Your task to perform on an android device: Turn on the flashlight Image 0: 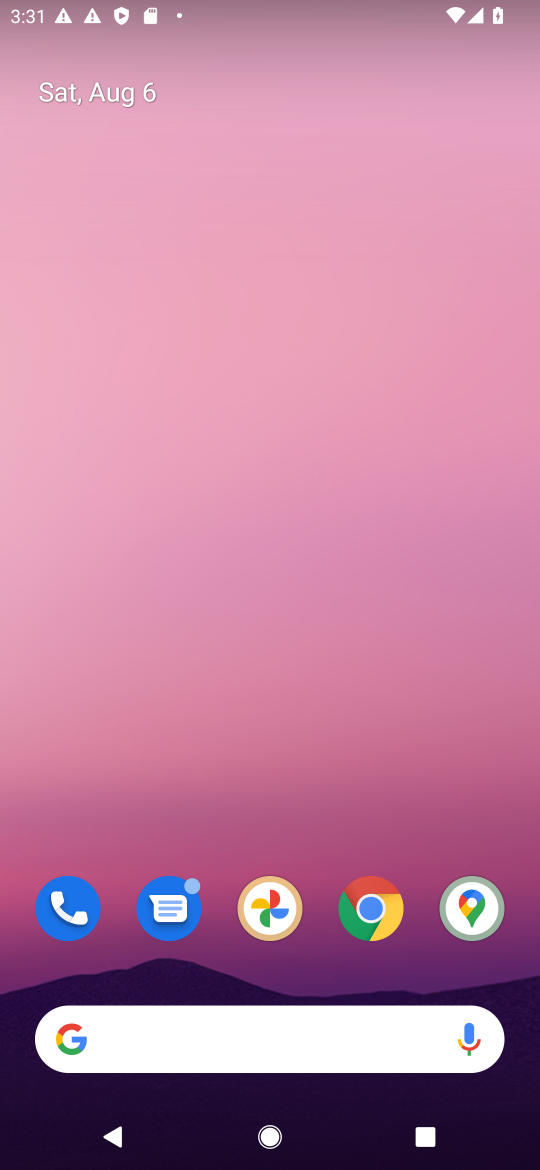
Step 0: drag from (261, 943) to (272, 60)
Your task to perform on an android device: Turn on the flashlight Image 1: 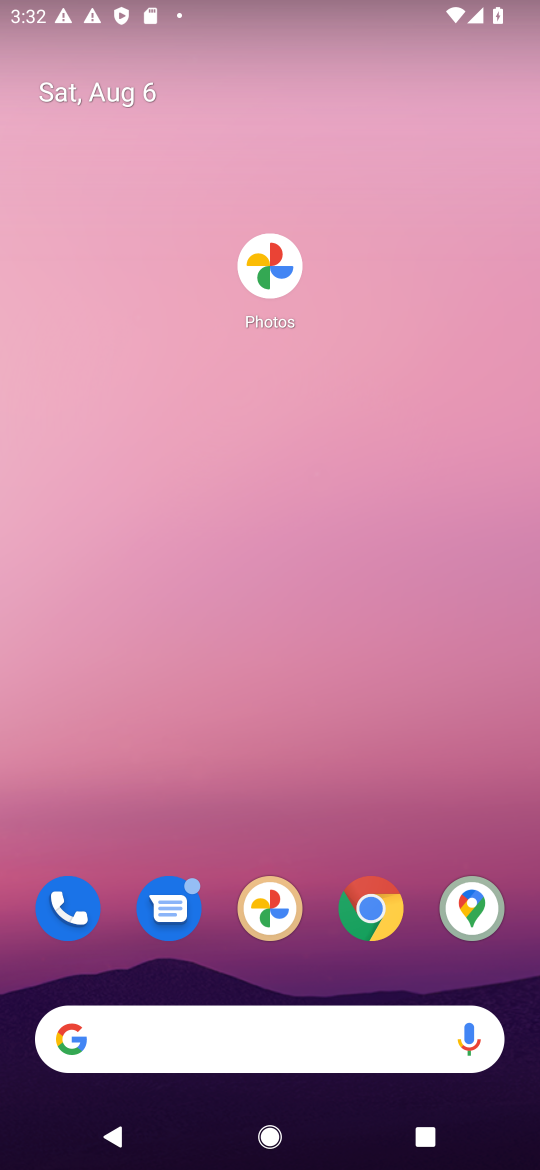
Step 1: drag from (331, 945) to (336, 262)
Your task to perform on an android device: Turn on the flashlight Image 2: 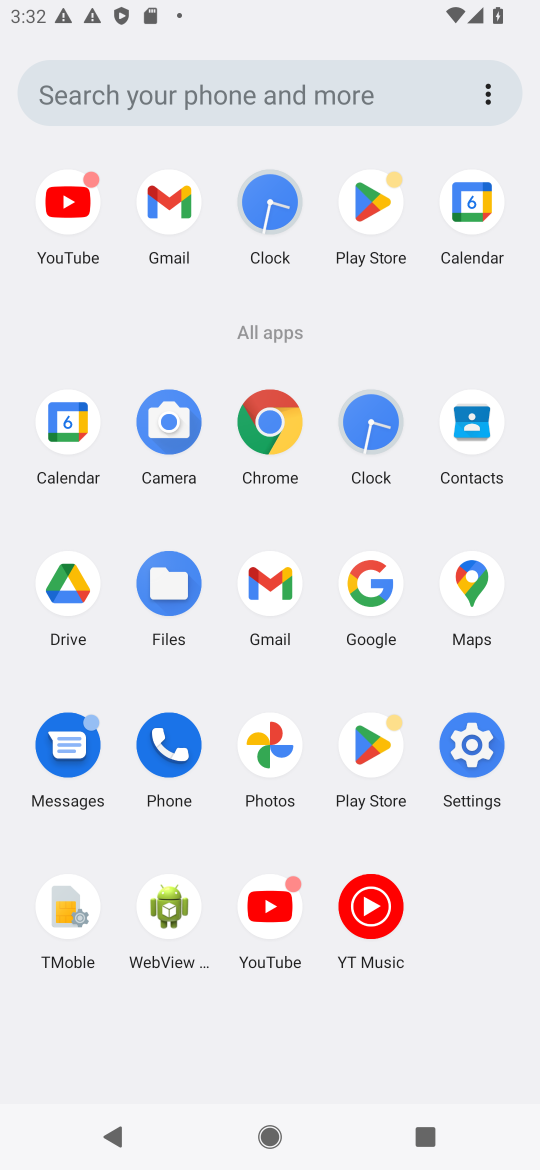
Step 2: click (479, 759)
Your task to perform on an android device: Turn on the flashlight Image 3: 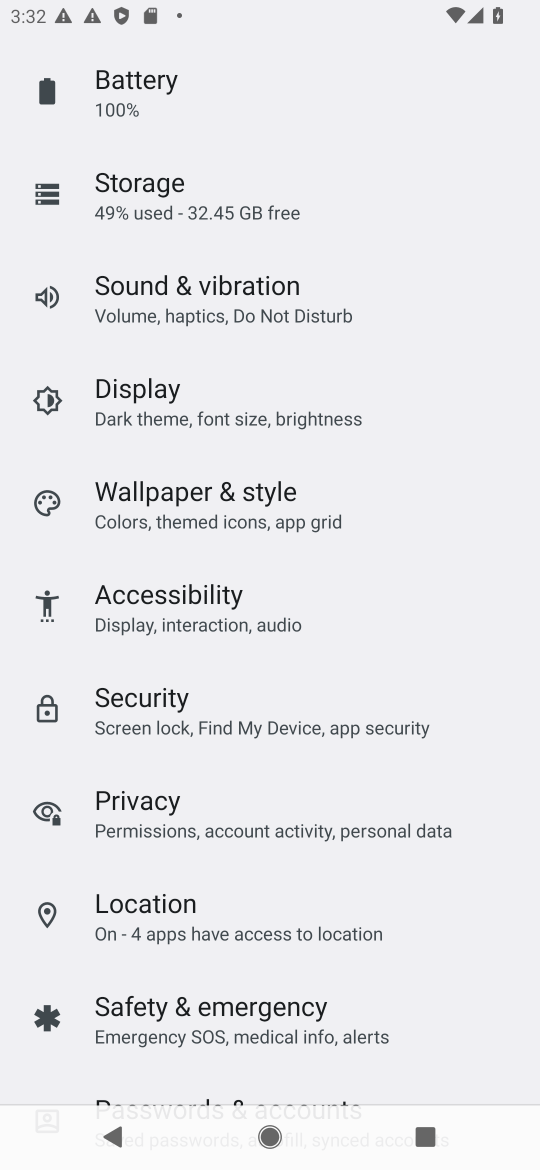
Step 3: drag from (246, 189) to (239, 1153)
Your task to perform on an android device: Turn on the flashlight Image 4: 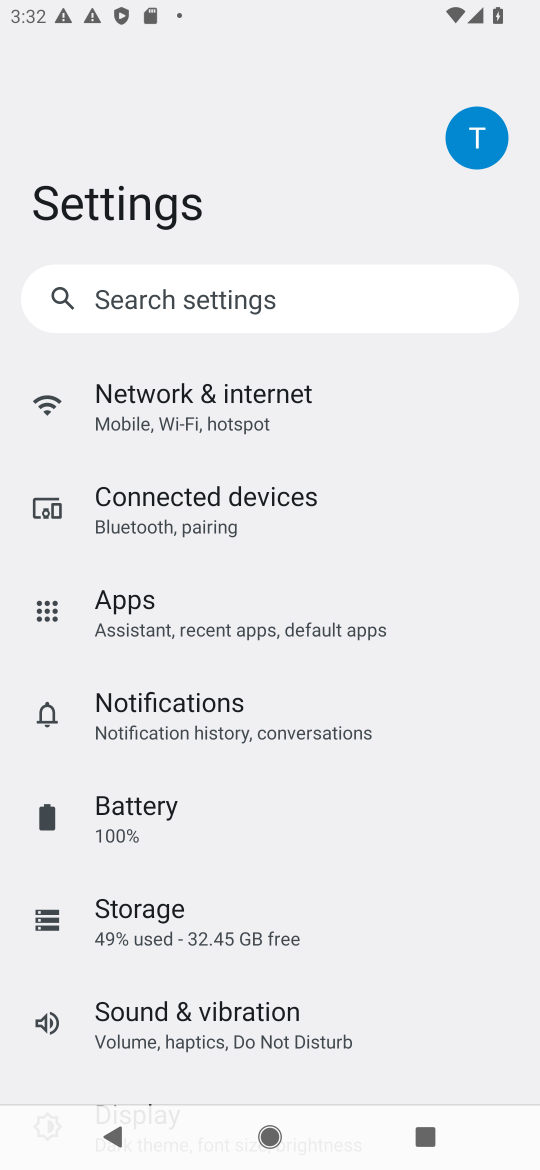
Step 4: click (247, 290)
Your task to perform on an android device: Turn on the flashlight Image 5: 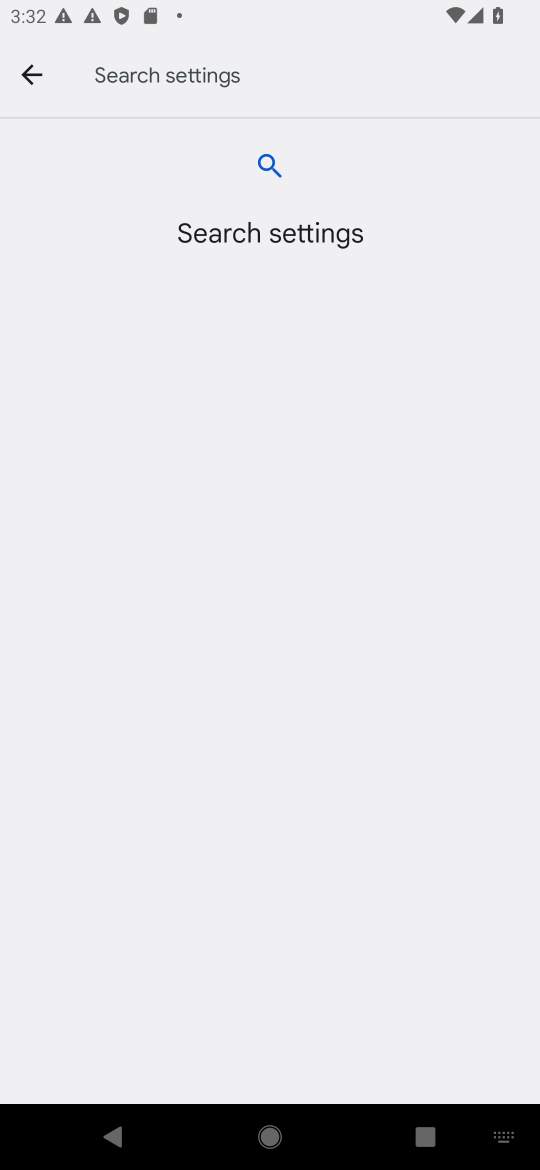
Step 5: type "flashlight"
Your task to perform on an android device: Turn on the flashlight Image 6: 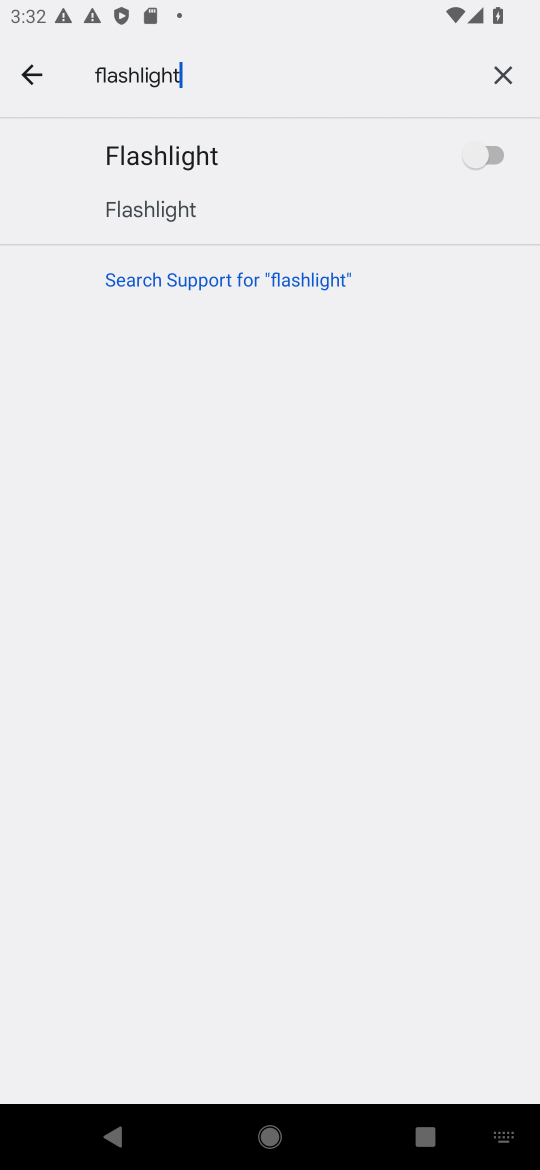
Step 6: click (500, 144)
Your task to perform on an android device: Turn on the flashlight Image 7: 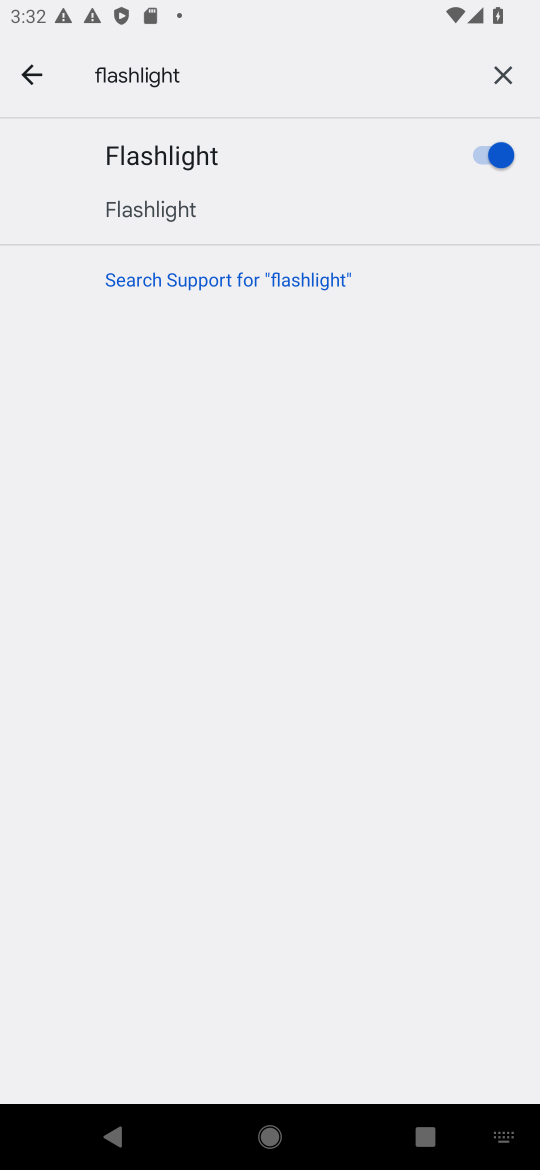
Step 7: task complete